Your task to perform on an android device: turn vacation reply on in the gmail app Image 0: 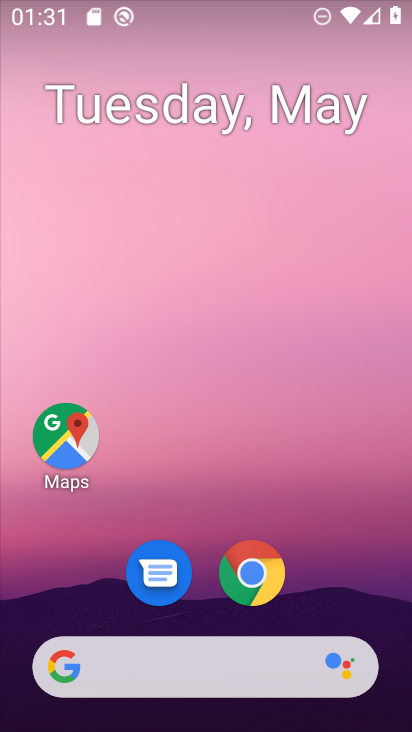
Step 0: drag from (325, 520) to (228, 67)
Your task to perform on an android device: turn vacation reply on in the gmail app Image 1: 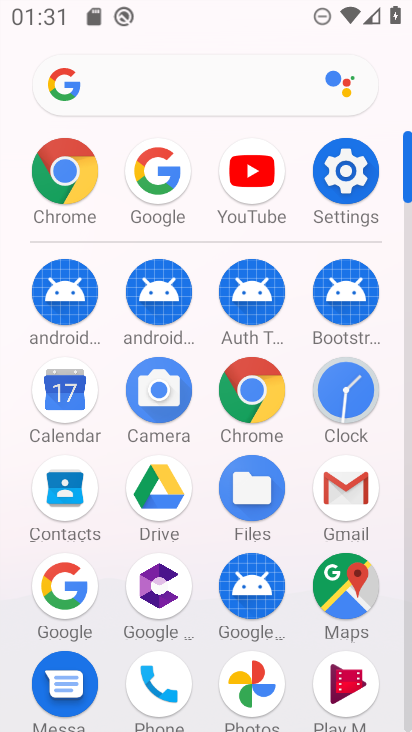
Step 1: click (333, 486)
Your task to perform on an android device: turn vacation reply on in the gmail app Image 2: 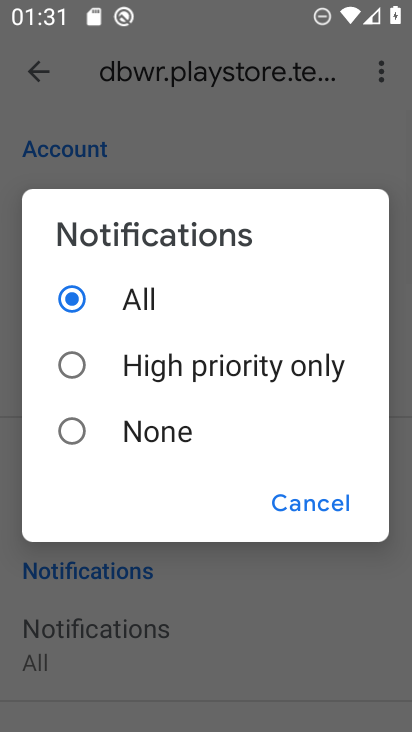
Step 2: click (334, 505)
Your task to perform on an android device: turn vacation reply on in the gmail app Image 3: 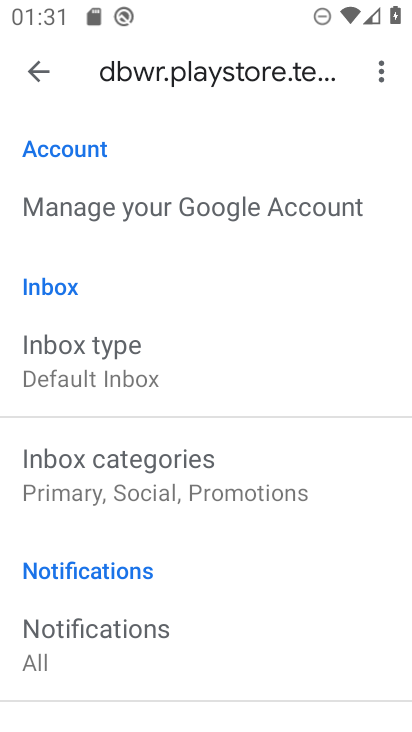
Step 3: drag from (223, 644) to (256, 205)
Your task to perform on an android device: turn vacation reply on in the gmail app Image 4: 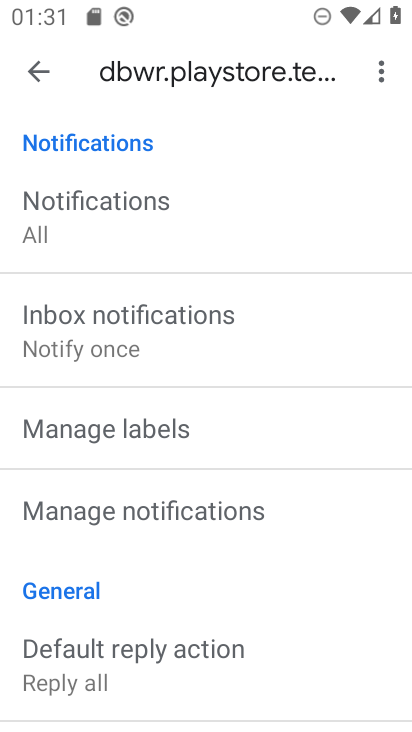
Step 4: drag from (194, 629) to (224, 160)
Your task to perform on an android device: turn vacation reply on in the gmail app Image 5: 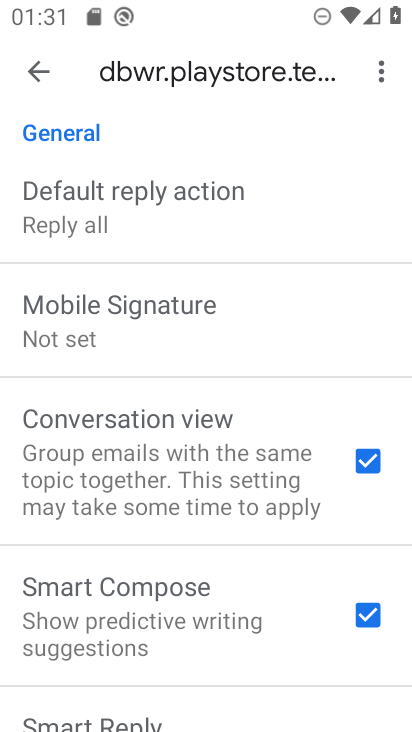
Step 5: drag from (190, 635) to (211, 182)
Your task to perform on an android device: turn vacation reply on in the gmail app Image 6: 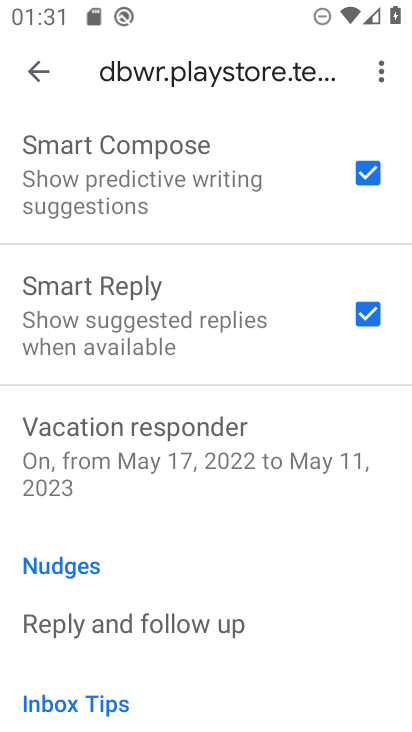
Step 6: click (170, 428)
Your task to perform on an android device: turn vacation reply on in the gmail app Image 7: 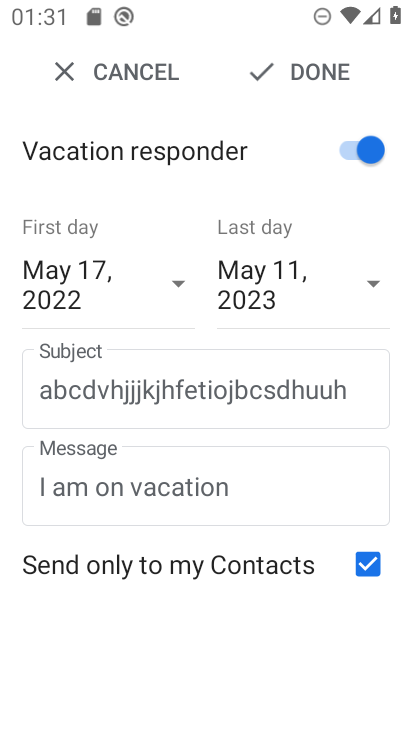
Step 7: click (330, 69)
Your task to perform on an android device: turn vacation reply on in the gmail app Image 8: 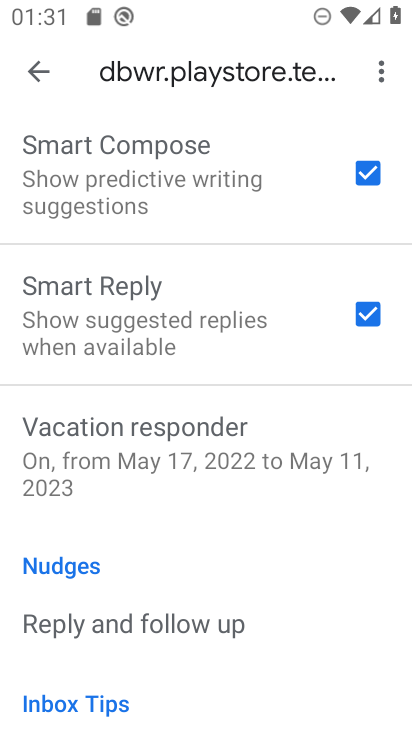
Step 8: task complete